Your task to perform on an android device: open app "HBO Max: Stream TV & Movies" (install if not already installed) and go to login screen Image 0: 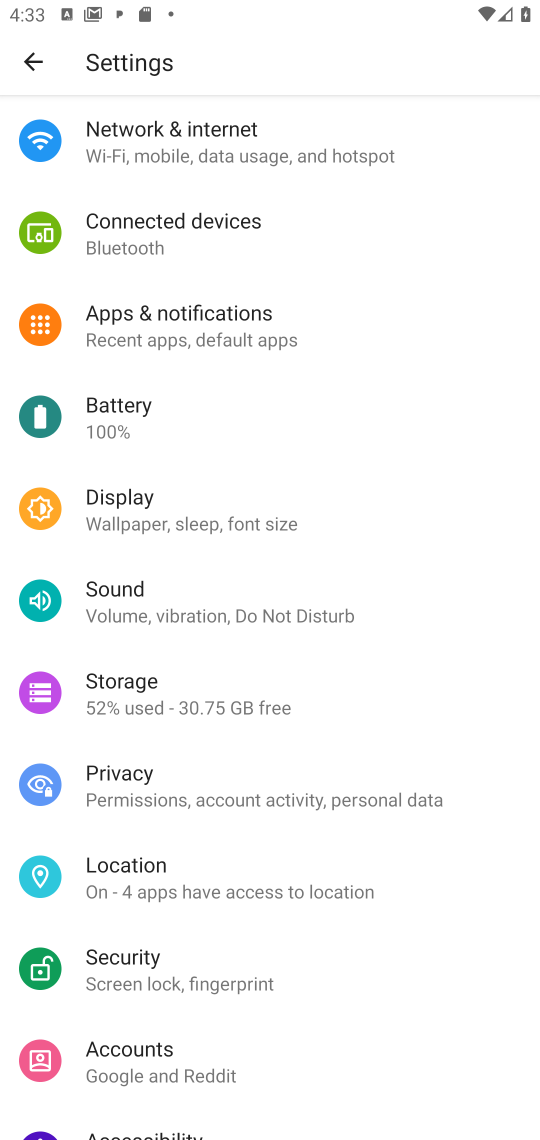
Step 0: press home button
Your task to perform on an android device: open app "HBO Max: Stream TV & Movies" (install if not already installed) and go to login screen Image 1: 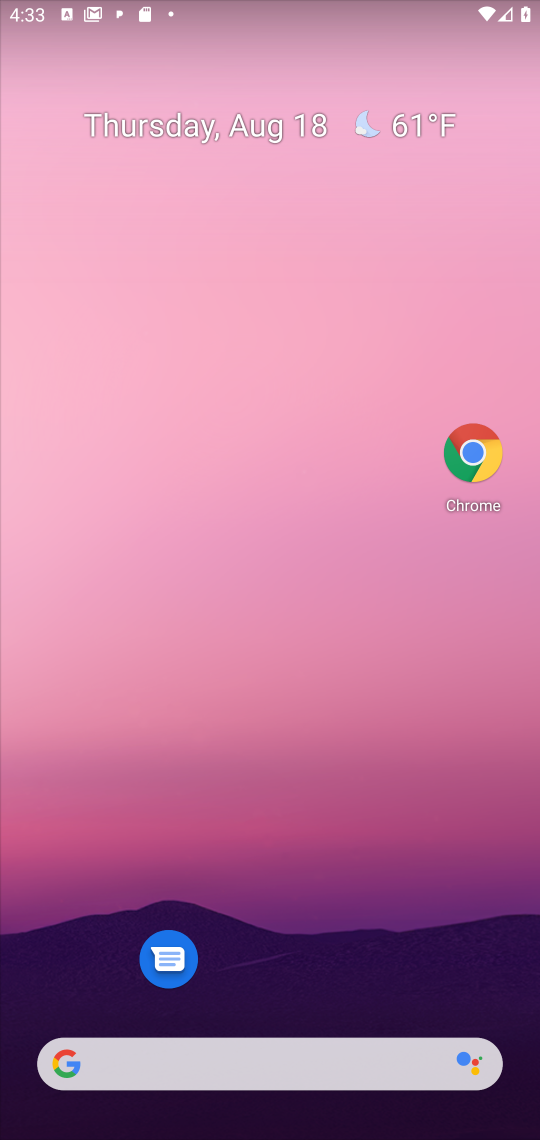
Step 1: drag from (285, 1119) to (434, 13)
Your task to perform on an android device: open app "HBO Max: Stream TV & Movies" (install if not already installed) and go to login screen Image 2: 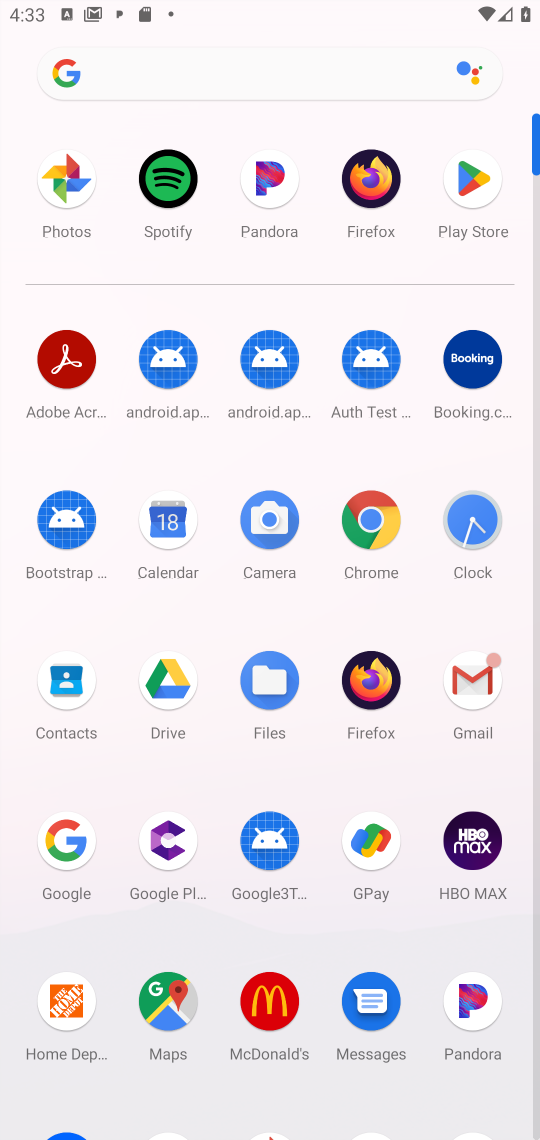
Step 2: drag from (289, 1004) to (413, 152)
Your task to perform on an android device: open app "HBO Max: Stream TV & Movies" (install if not already installed) and go to login screen Image 3: 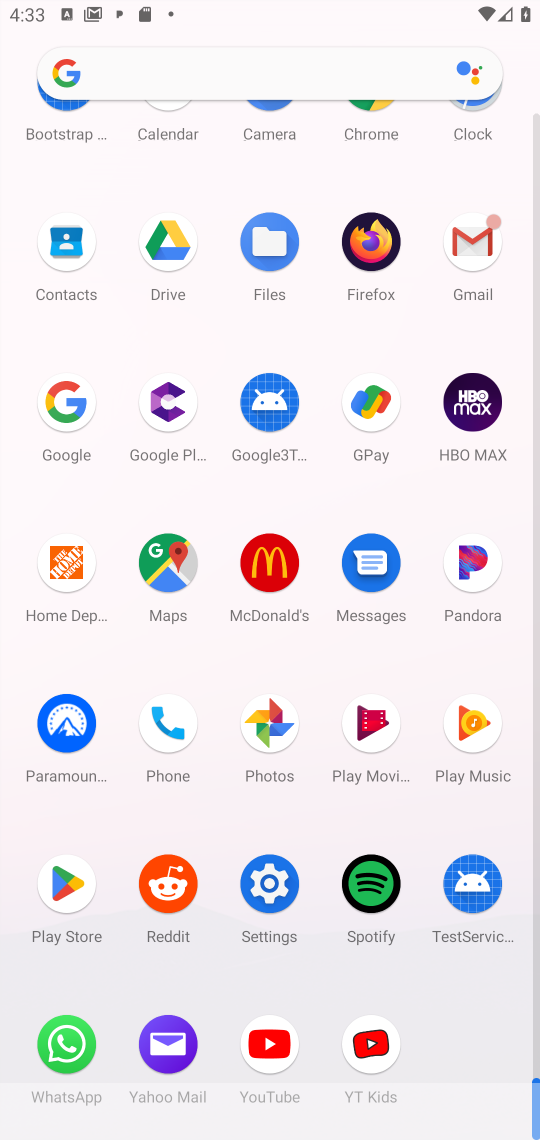
Step 3: click (473, 420)
Your task to perform on an android device: open app "HBO Max: Stream TV & Movies" (install if not already installed) and go to login screen Image 4: 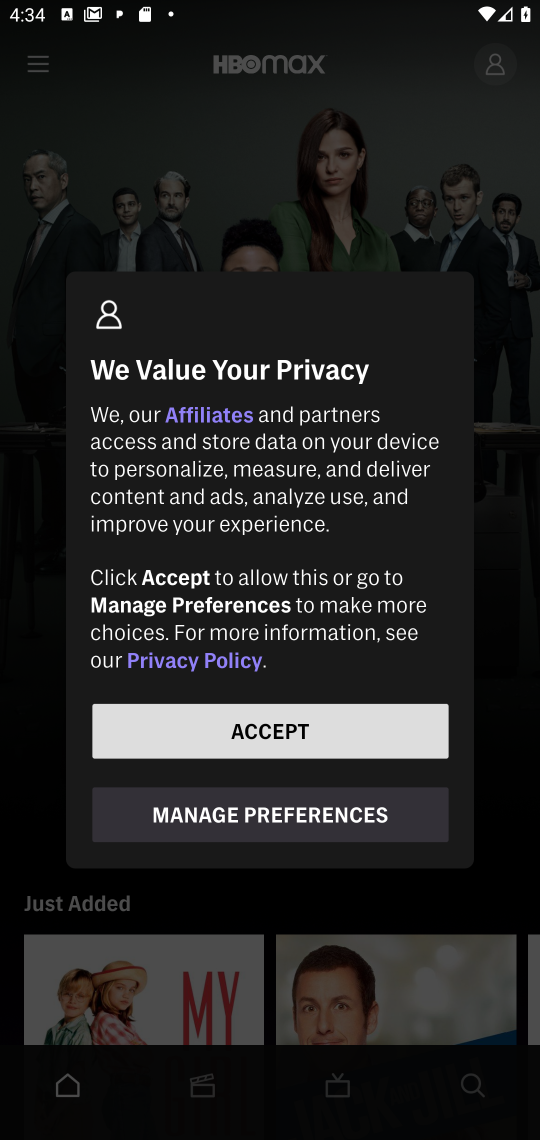
Step 4: task complete